Your task to perform on an android device: turn off notifications in google photos Image 0: 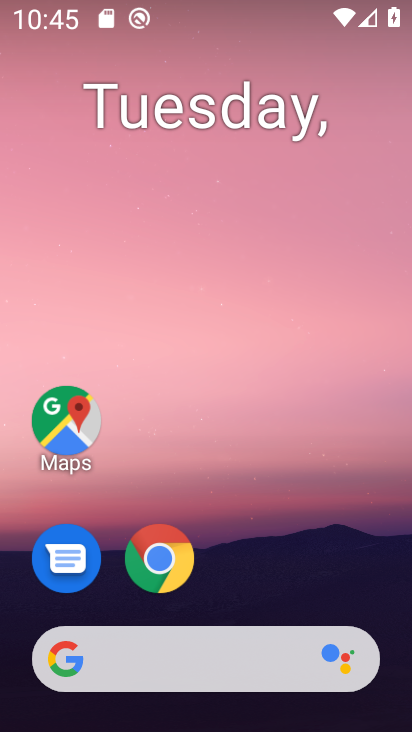
Step 0: drag from (368, 572) to (361, 97)
Your task to perform on an android device: turn off notifications in google photos Image 1: 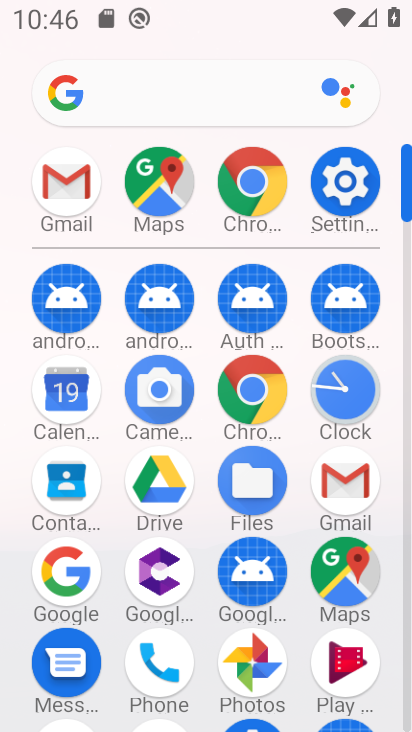
Step 1: click (249, 657)
Your task to perform on an android device: turn off notifications in google photos Image 2: 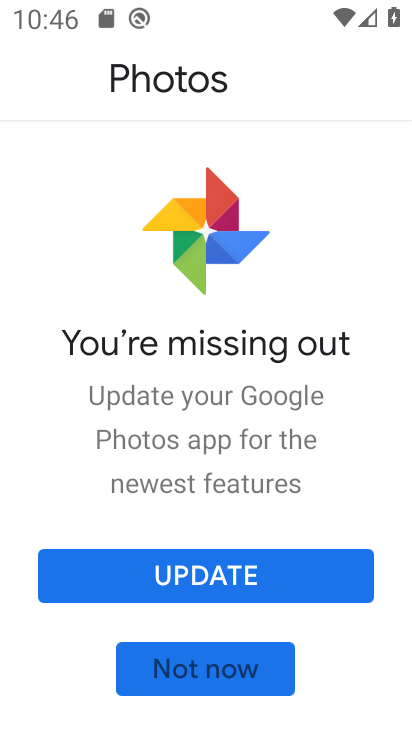
Step 2: click (278, 589)
Your task to perform on an android device: turn off notifications in google photos Image 3: 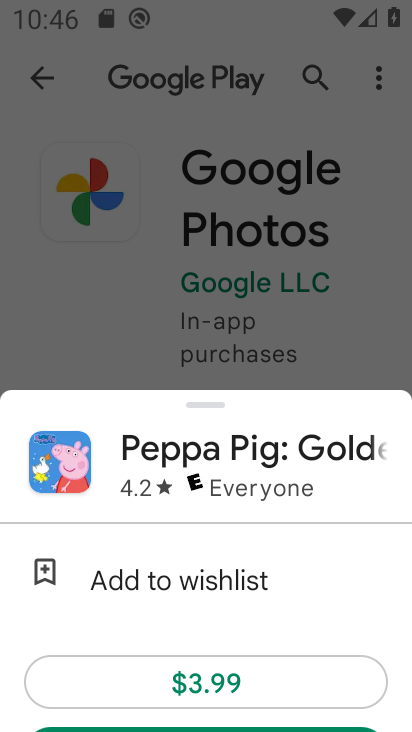
Step 3: press back button
Your task to perform on an android device: turn off notifications in google photos Image 4: 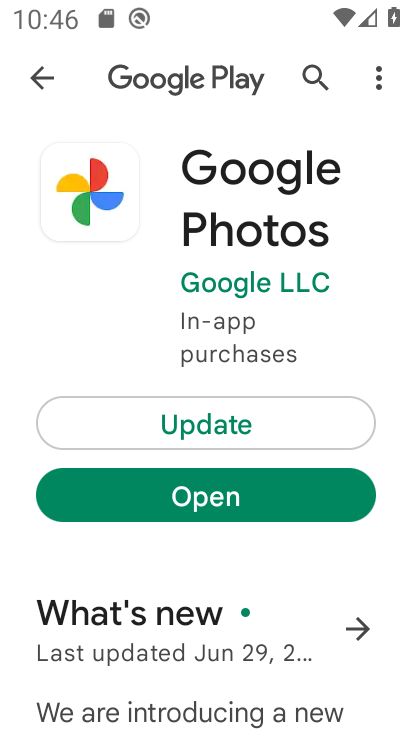
Step 4: click (346, 410)
Your task to perform on an android device: turn off notifications in google photos Image 5: 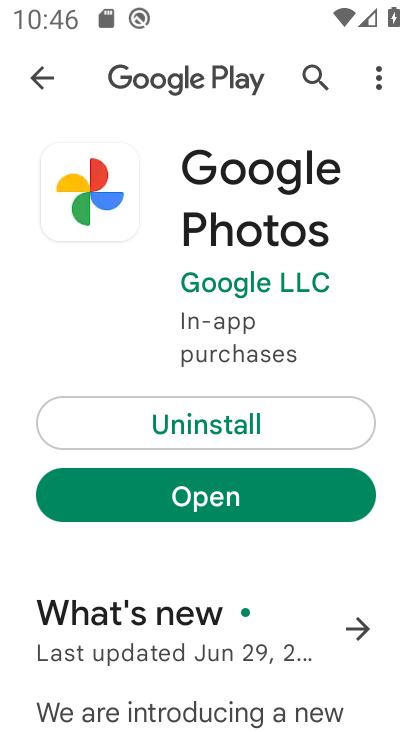
Step 5: click (342, 492)
Your task to perform on an android device: turn off notifications in google photos Image 6: 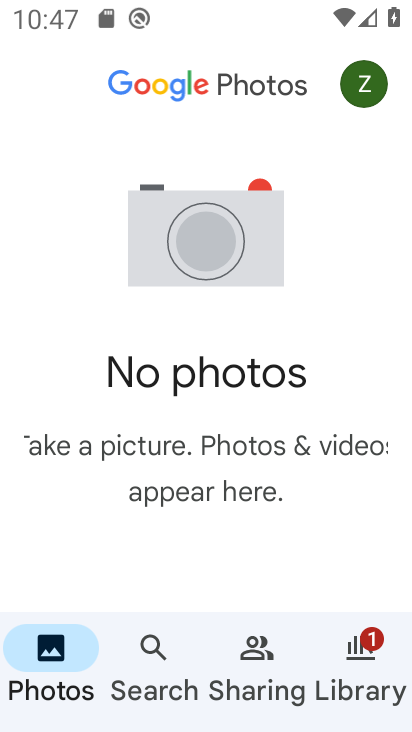
Step 6: click (366, 84)
Your task to perform on an android device: turn off notifications in google photos Image 7: 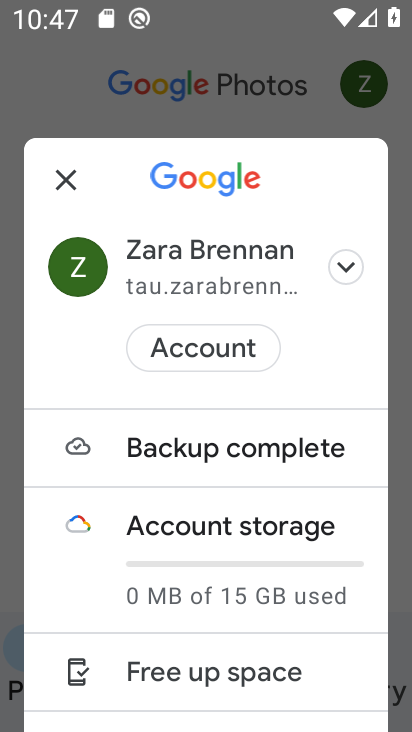
Step 7: drag from (292, 628) to (300, 396)
Your task to perform on an android device: turn off notifications in google photos Image 8: 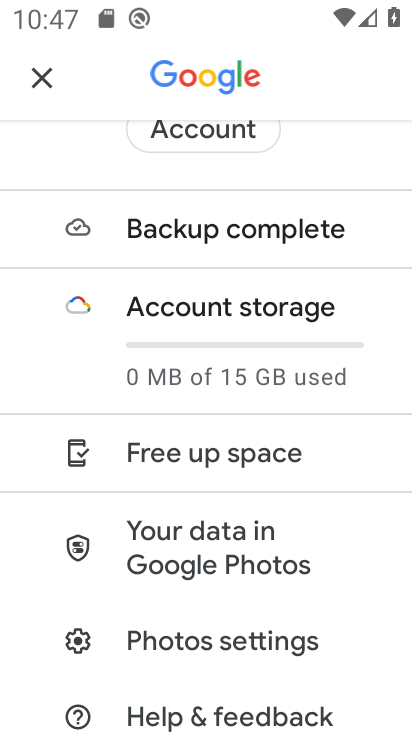
Step 8: click (306, 649)
Your task to perform on an android device: turn off notifications in google photos Image 9: 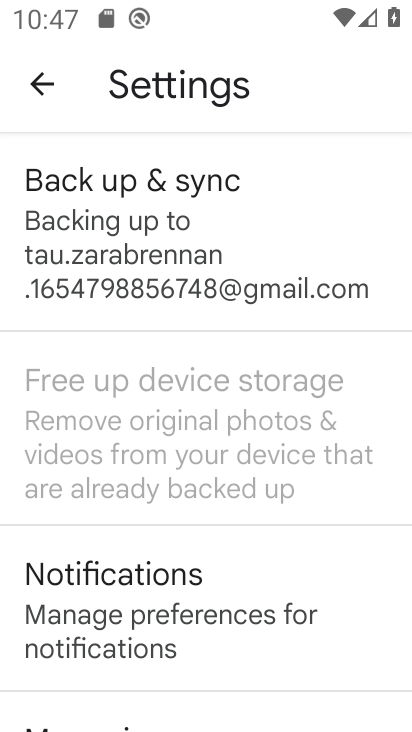
Step 9: click (272, 580)
Your task to perform on an android device: turn off notifications in google photos Image 10: 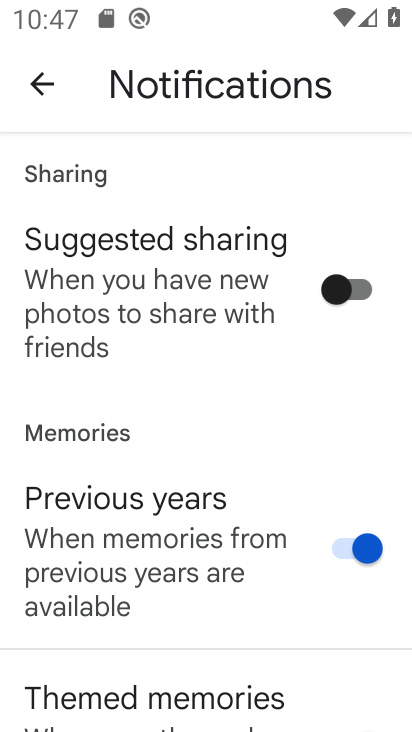
Step 10: drag from (280, 609) to (280, 454)
Your task to perform on an android device: turn off notifications in google photos Image 11: 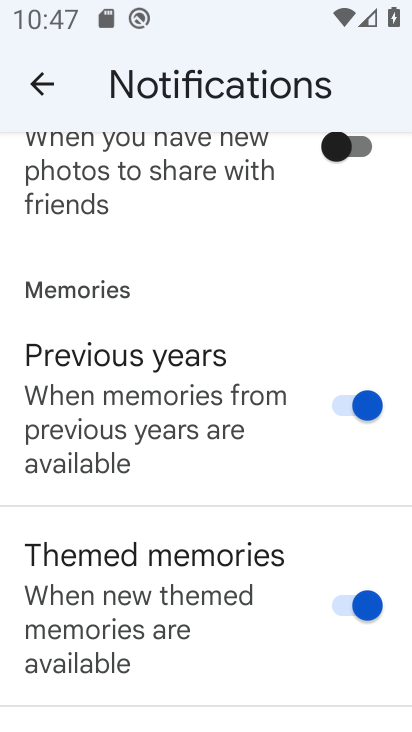
Step 11: drag from (292, 638) to (297, 444)
Your task to perform on an android device: turn off notifications in google photos Image 12: 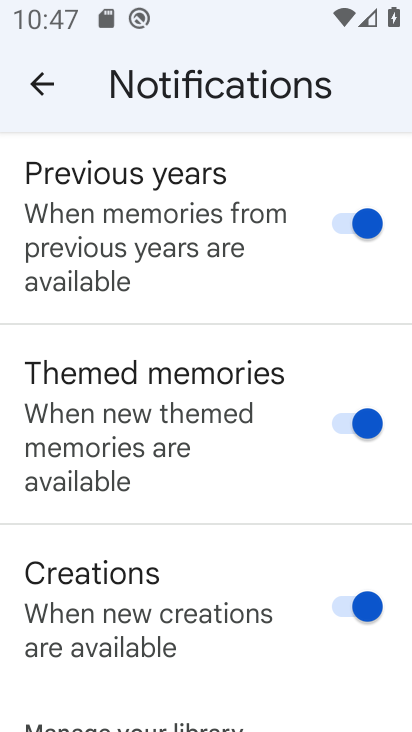
Step 12: drag from (285, 623) to (295, 425)
Your task to perform on an android device: turn off notifications in google photos Image 13: 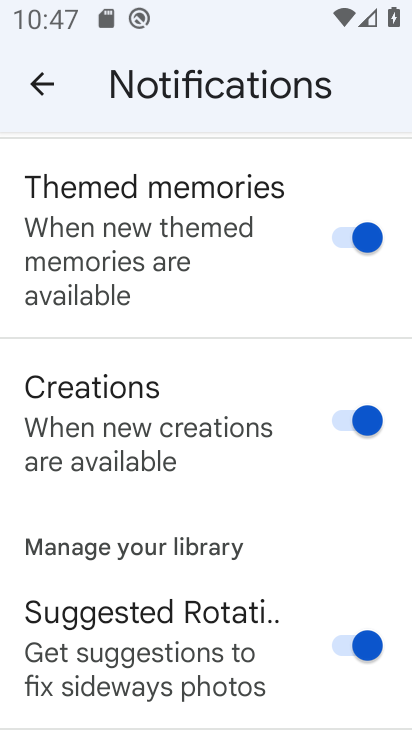
Step 13: drag from (288, 620) to (288, 443)
Your task to perform on an android device: turn off notifications in google photos Image 14: 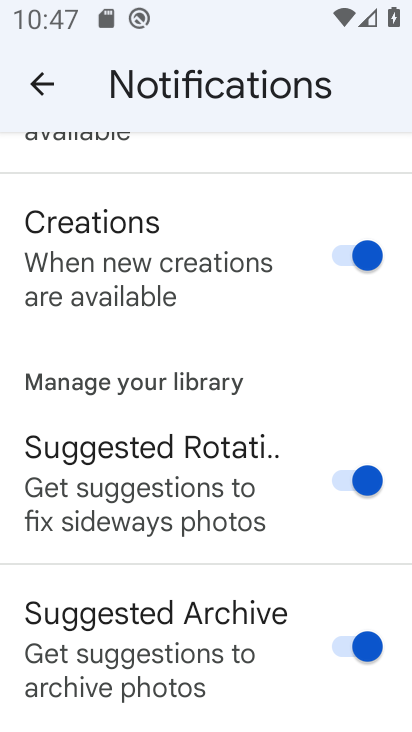
Step 14: drag from (279, 631) to (261, 373)
Your task to perform on an android device: turn off notifications in google photos Image 15: 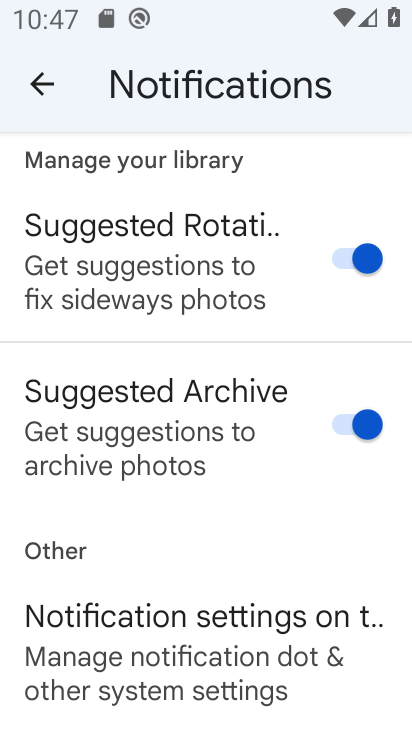
Step 15: drag from (238, 551) to (244, 303)
Your task to perform on an android device: turn off notifications in google photos Image 16: 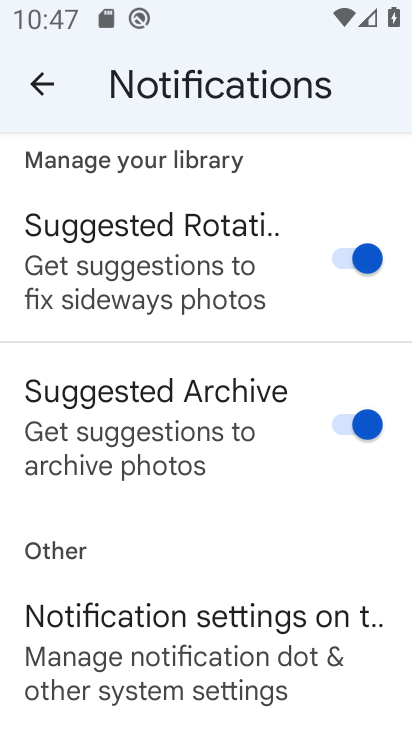
Step 16: click (269, 632)
Your task to perform on an android device: turn off notifications in google photos Image 17: 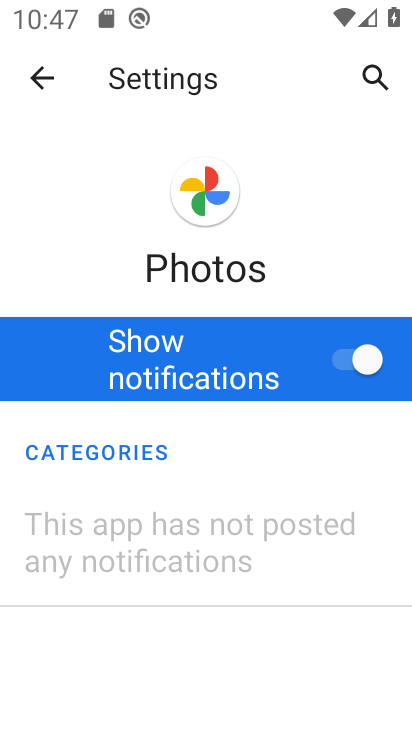
Step 17: click (373, 355)
Your task to perform on an android device: turn off notifications in google photos Image 18: 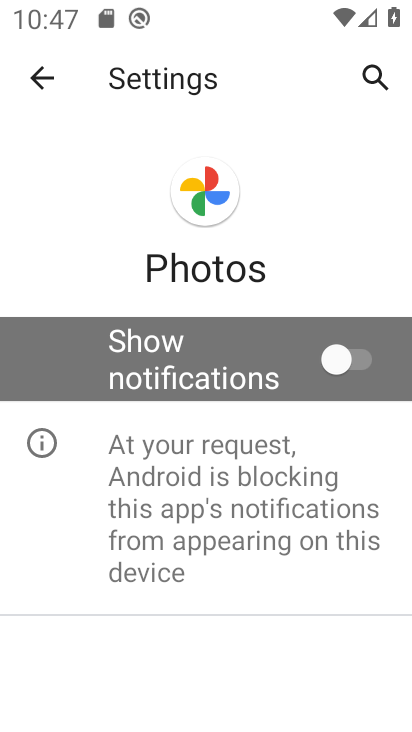
Step 18: task complete